Your task to perform on an android device: Open the stopwatch Image 0: 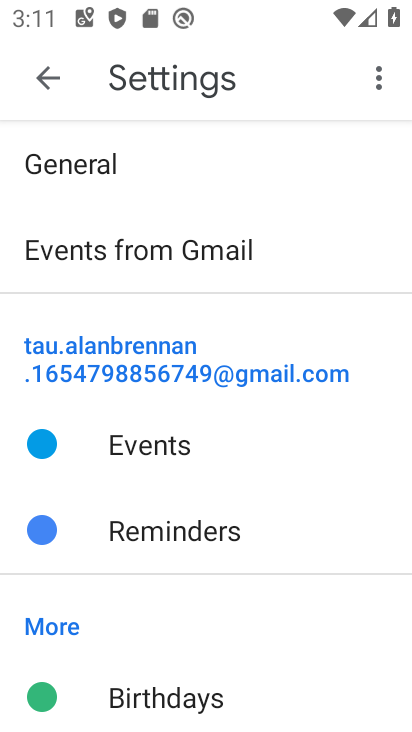
Step 0: press home button
Your task to perform on an android device: Open the stopwatch Image 1: 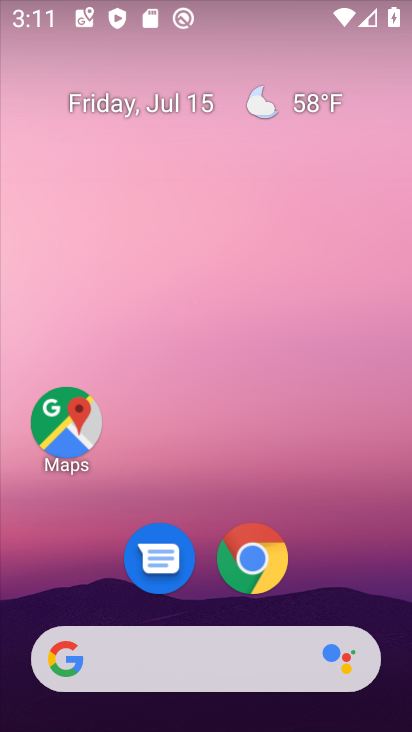
Step 1: drag from (362, 590) to (408, 555)
Your task to perform on an android device: Open the stopwatch Image 2: 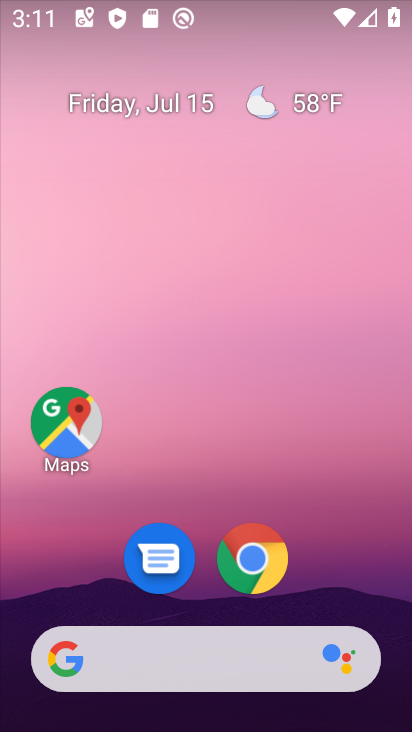
Step 2: drag from (349, 573) to (384, 159)
Your task to perform on an android device: Open the stopwatch Image 3: 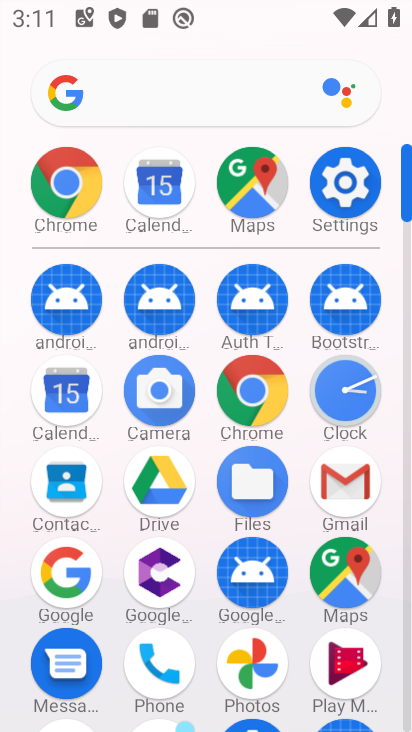
Step 3: click (364, 392)
Your task to perform on an android device: Open the stopwatch Image 4: 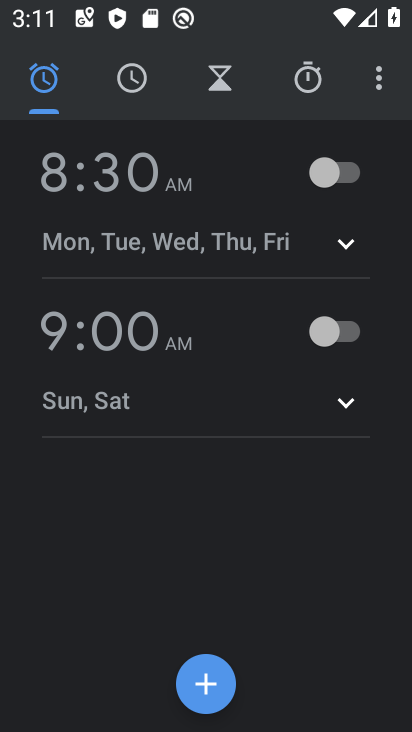
Step 4: click (309, 86)
Your task to perform on an android device: Open the stopwatch Image 5: 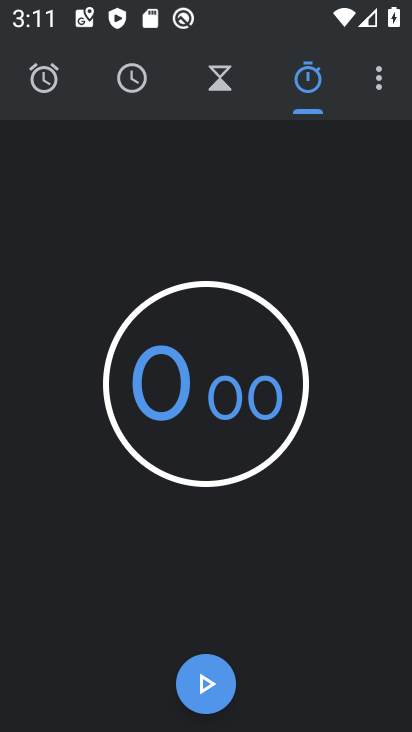
Step 5: task complete